Your task to perform on an android device: open app "Booking.com: Hotels and more" (install if not already installed) and go to login screen Image 0: 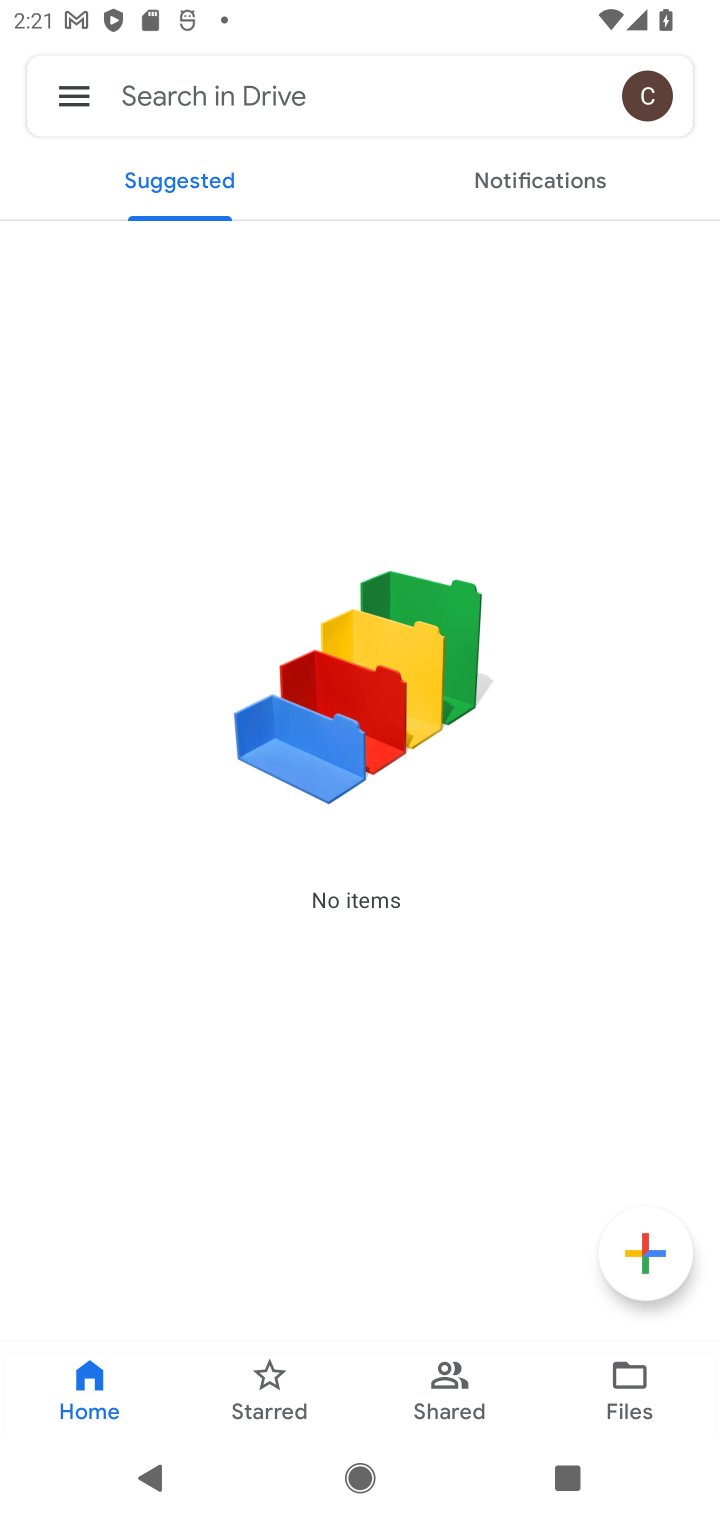
Step 0: press home button
Your task to perform on an android device: open app "Booking.com: Hotels and more" (install if not already installed) and go to login screen Image 1: 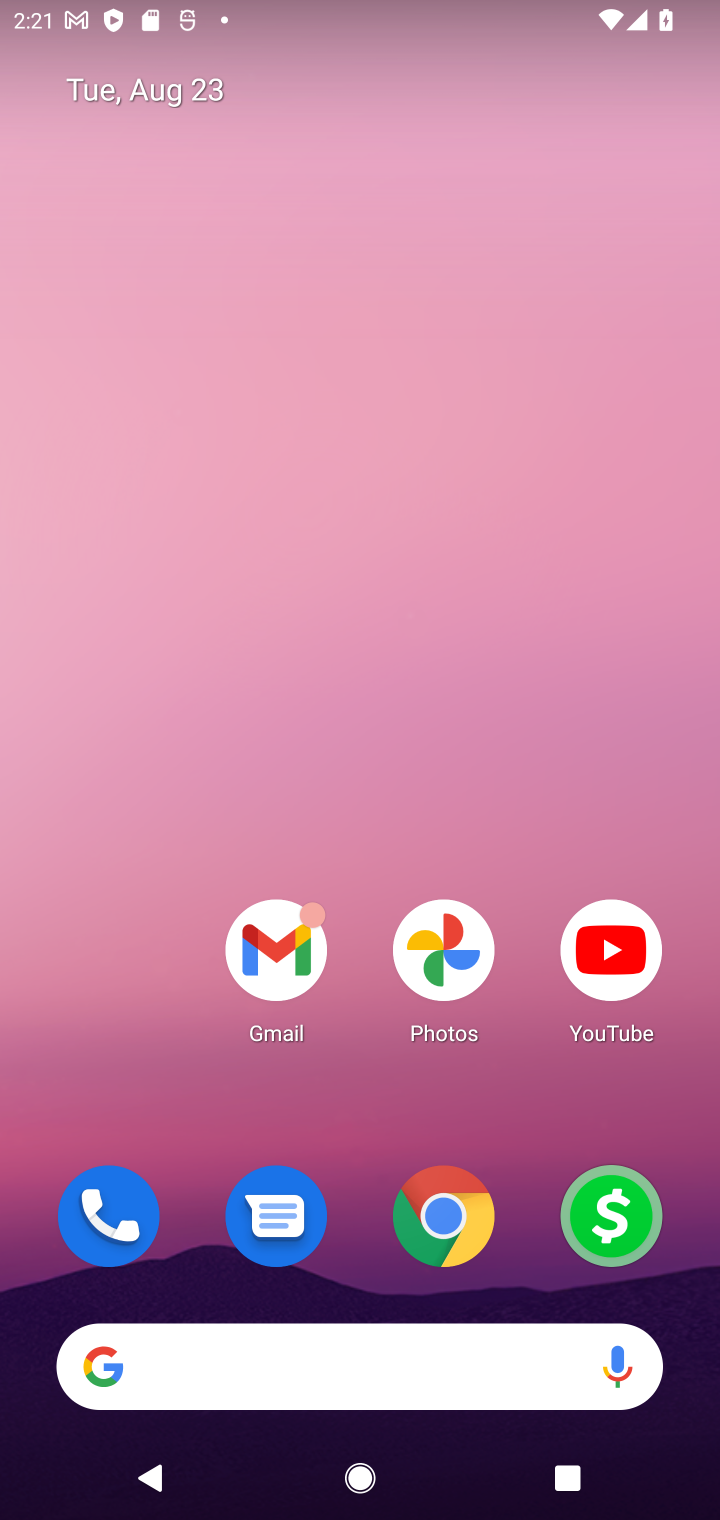
Step 1: drag from (263, 1328) to (327, 317)
Your task to perform on an android device: open app "Booking.com: Hotels and more" (install if not already installed) and go to login screen Image 2: 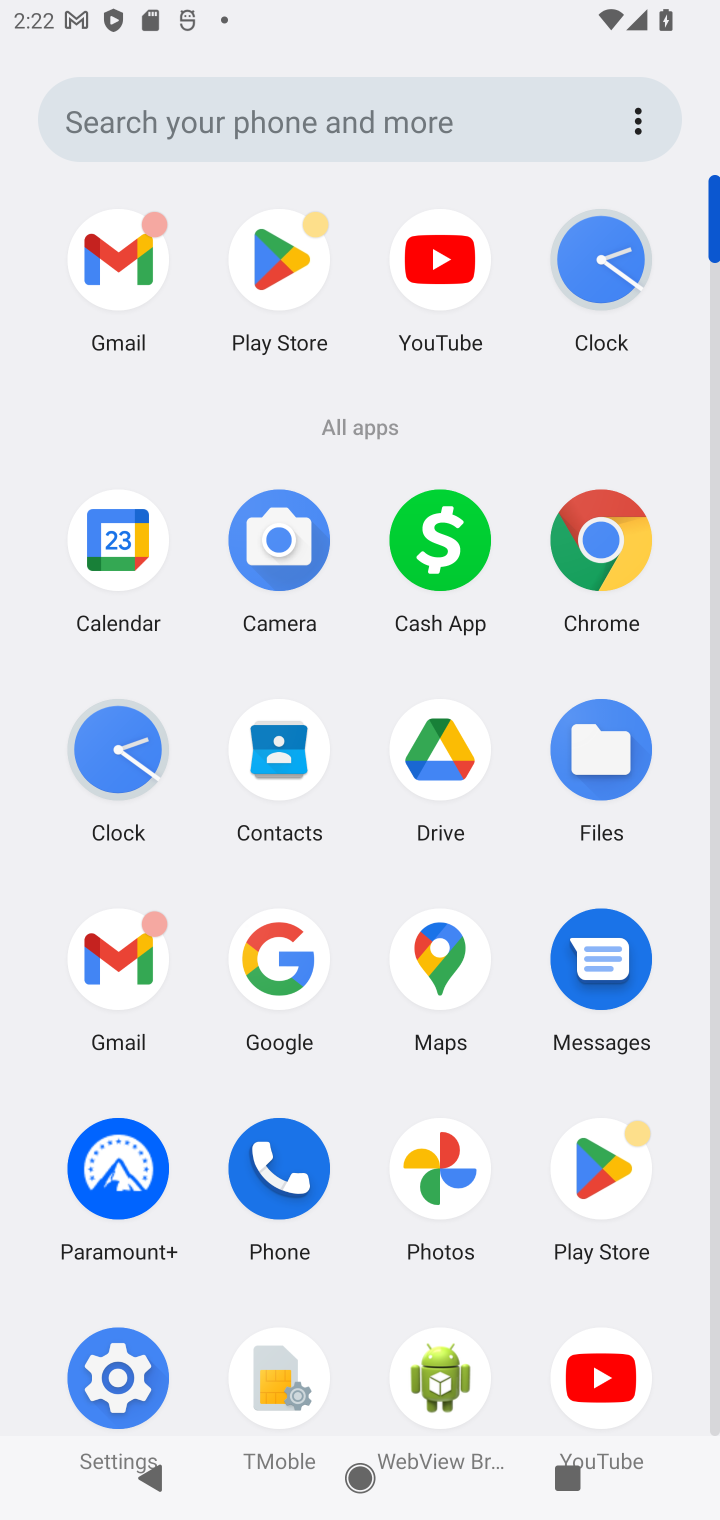
Step 2: click (283, 252)
Your task to perform on an android device: open app "Booking.com: Hotels and more" (install if not already installed) and go to login screen Image 3: 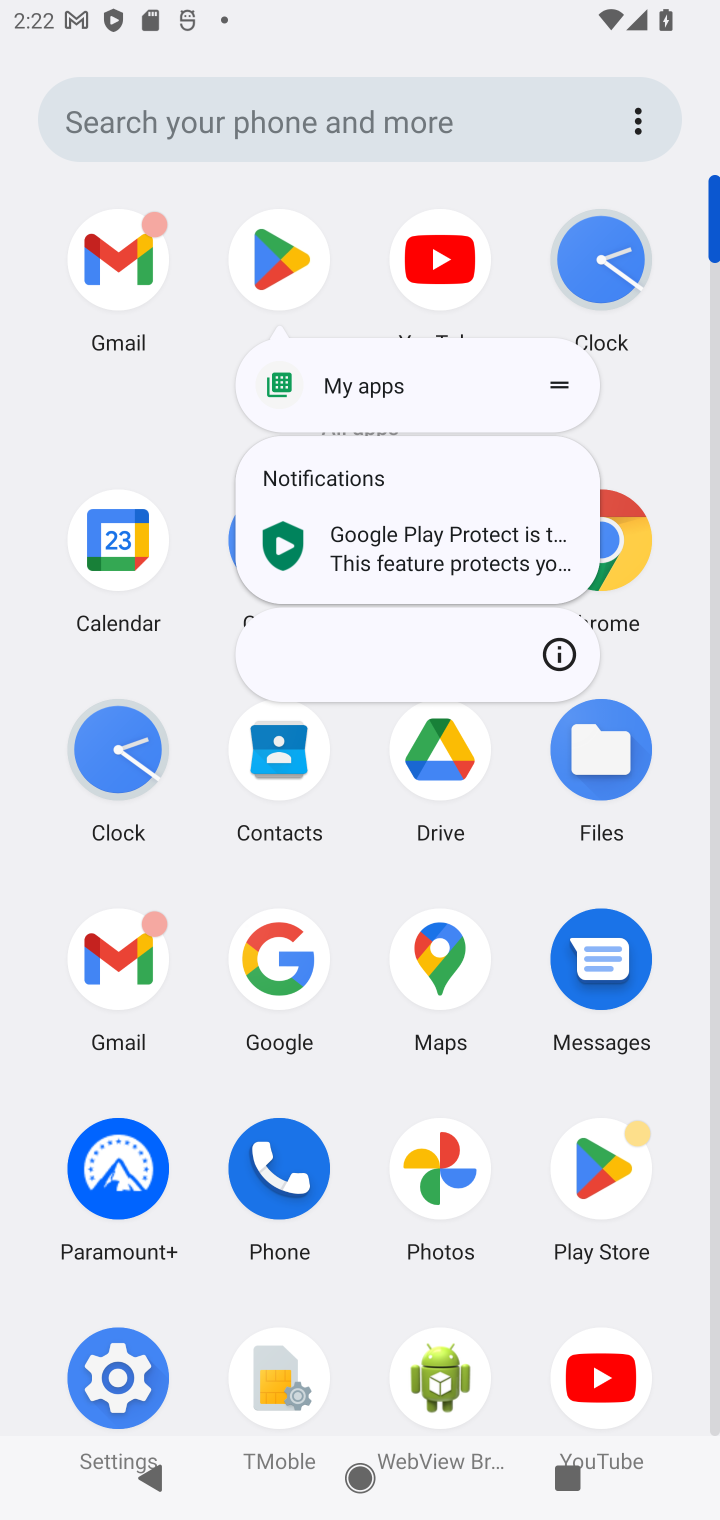
Step 3: click (283, 252)
Your task to perform on an android device: open app "Booking.com: Hotels and more" (install if not already installed) and go to login screen Image 4: 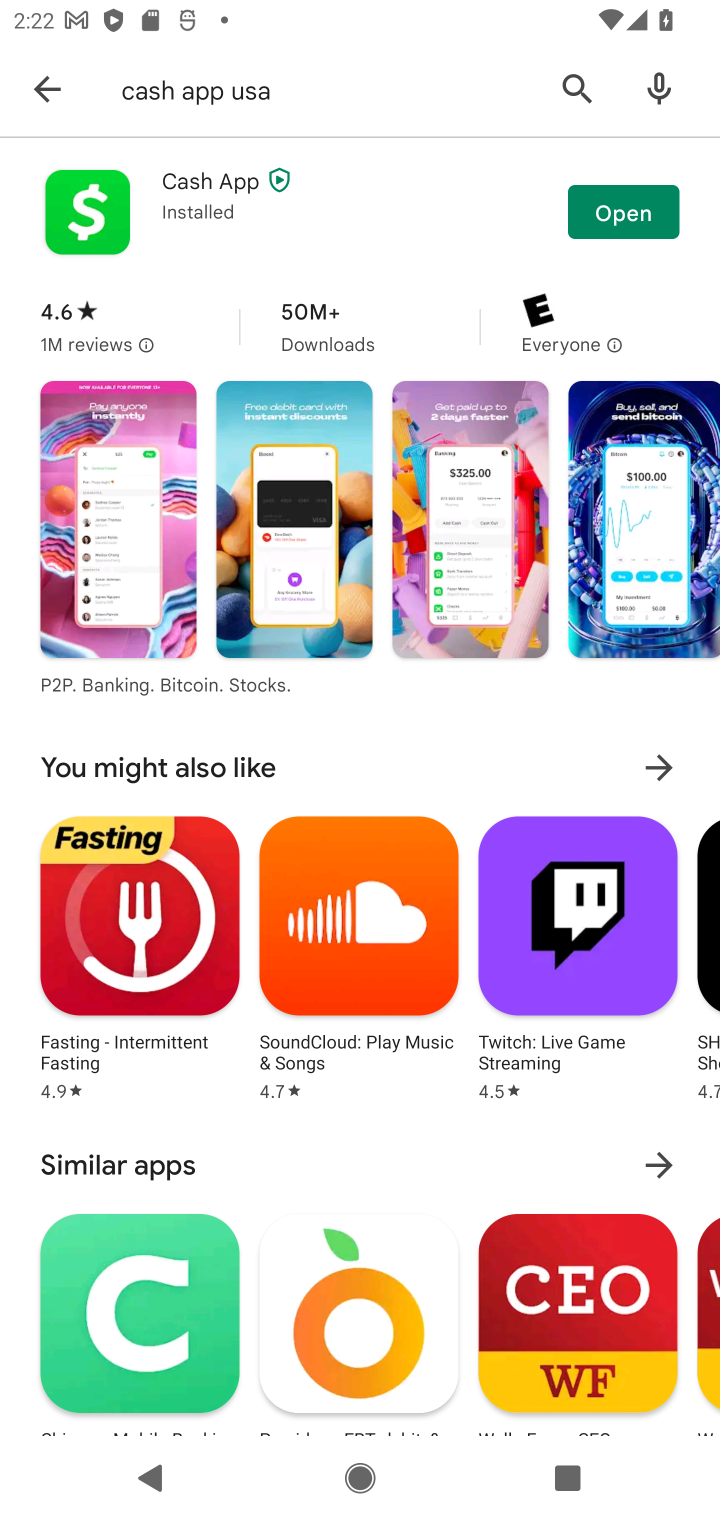
Step 4: click (52, 77)
Your task to perform on an android device: open app "Booking.com: Hotels and more" (install if not already installed) and go to login screen Image 5: 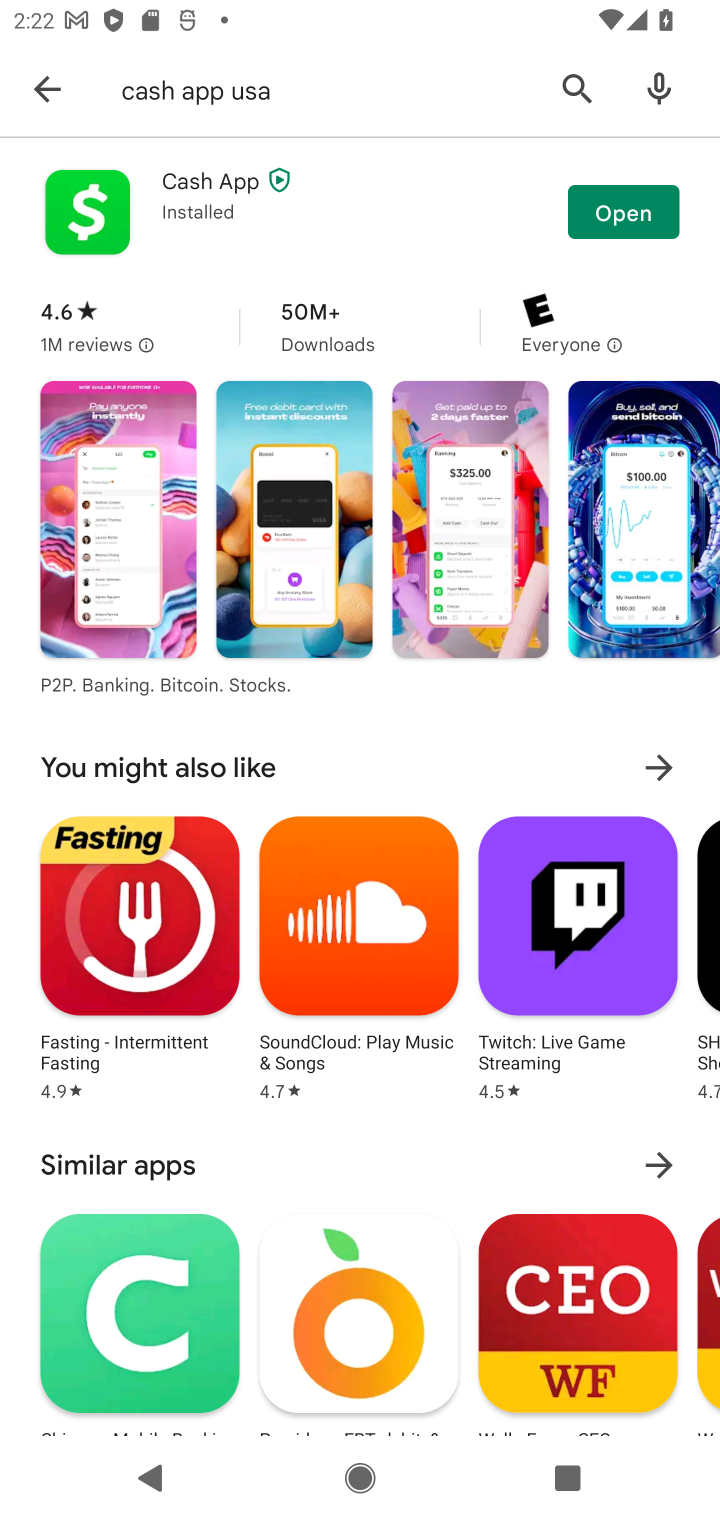
Step 5: click (52, 77)
Your task to perform on an android device: open app "Booking.com: Hotels and more" (install if not already installed) and go to login screen Image 6: 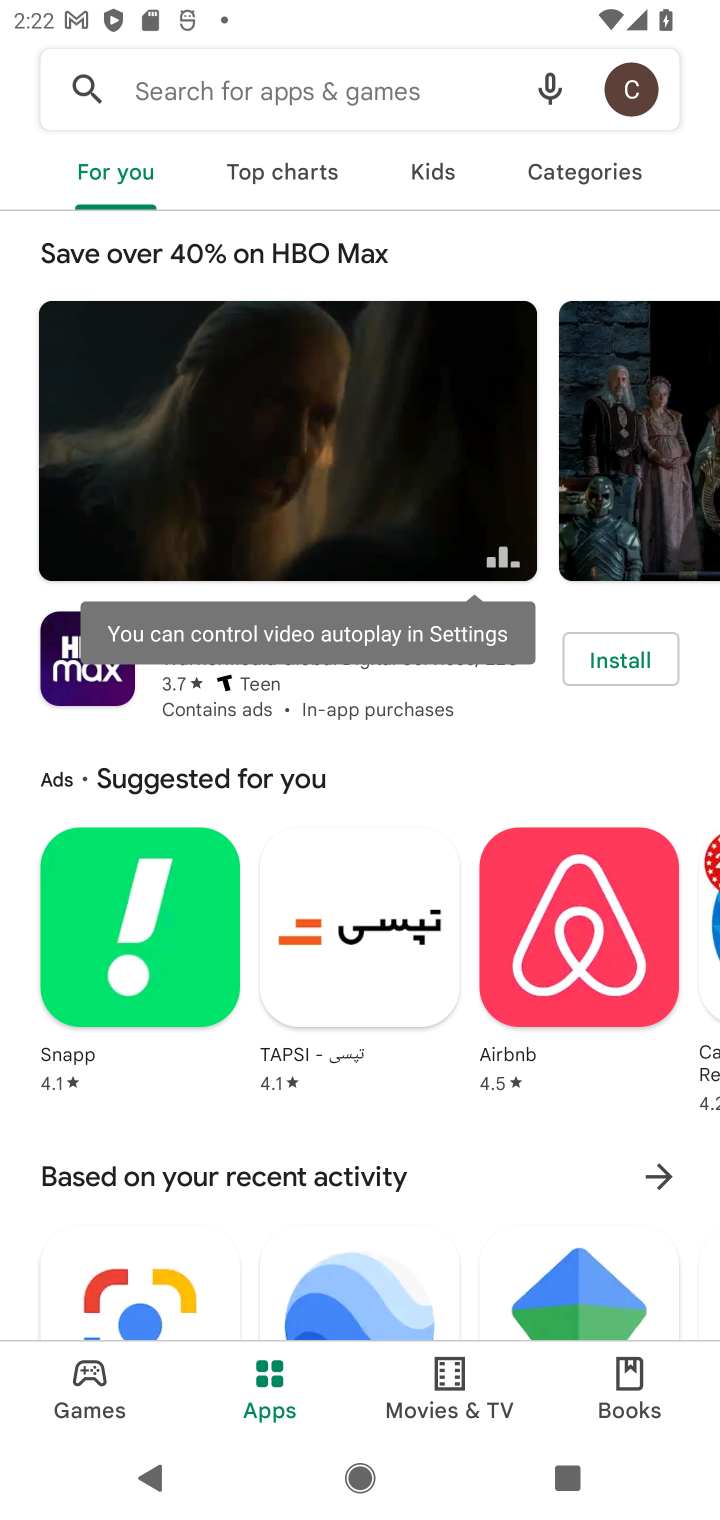
Step 6: click (314, 66)
Your task to perform on an android device: open app "Booking.com: Hotels and more" (install if not already installed) and go to login screen Image 7: 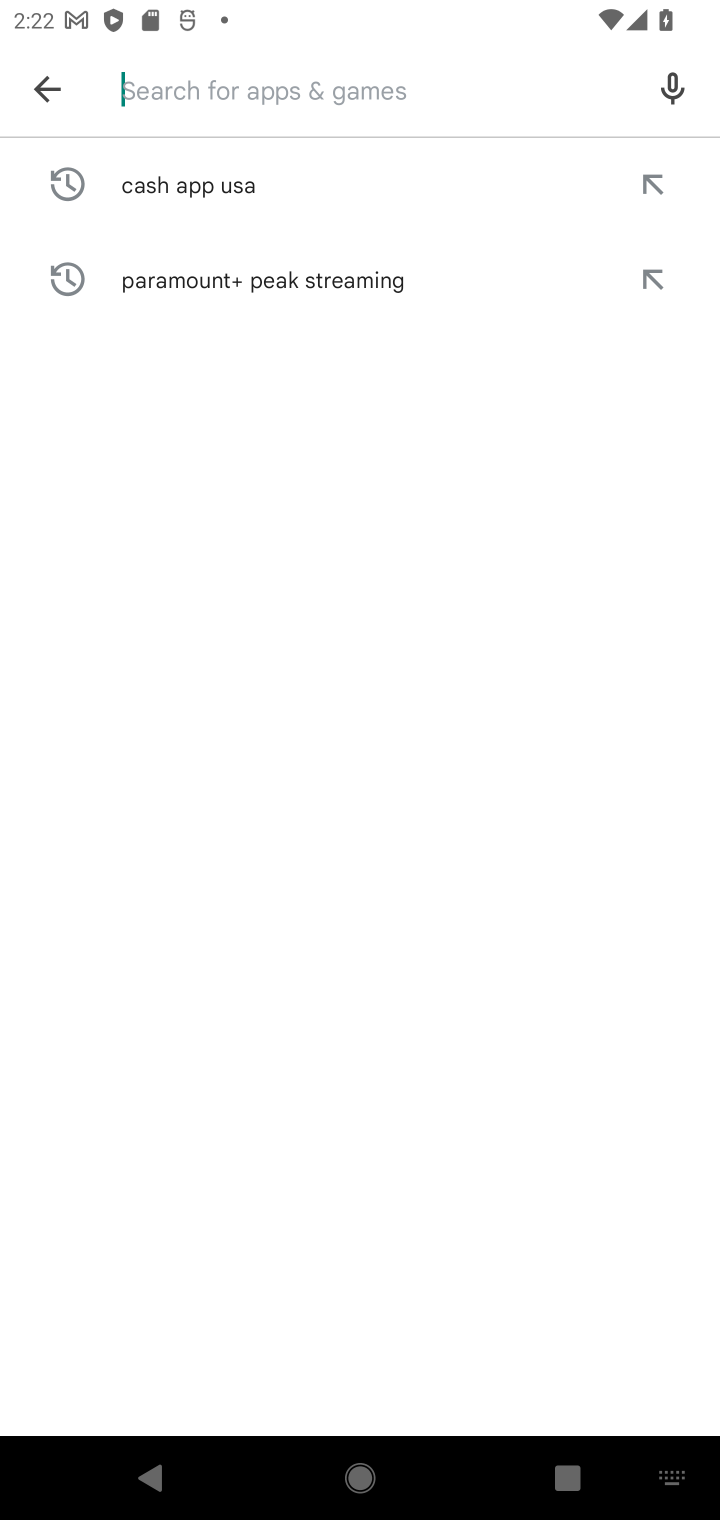
Step 7: type "Booking.com: Hotels and more "
Your task to perform on an android device: open app "Booking.com: Hotels and more" (install if not already installed) and go to login screen Image 8: 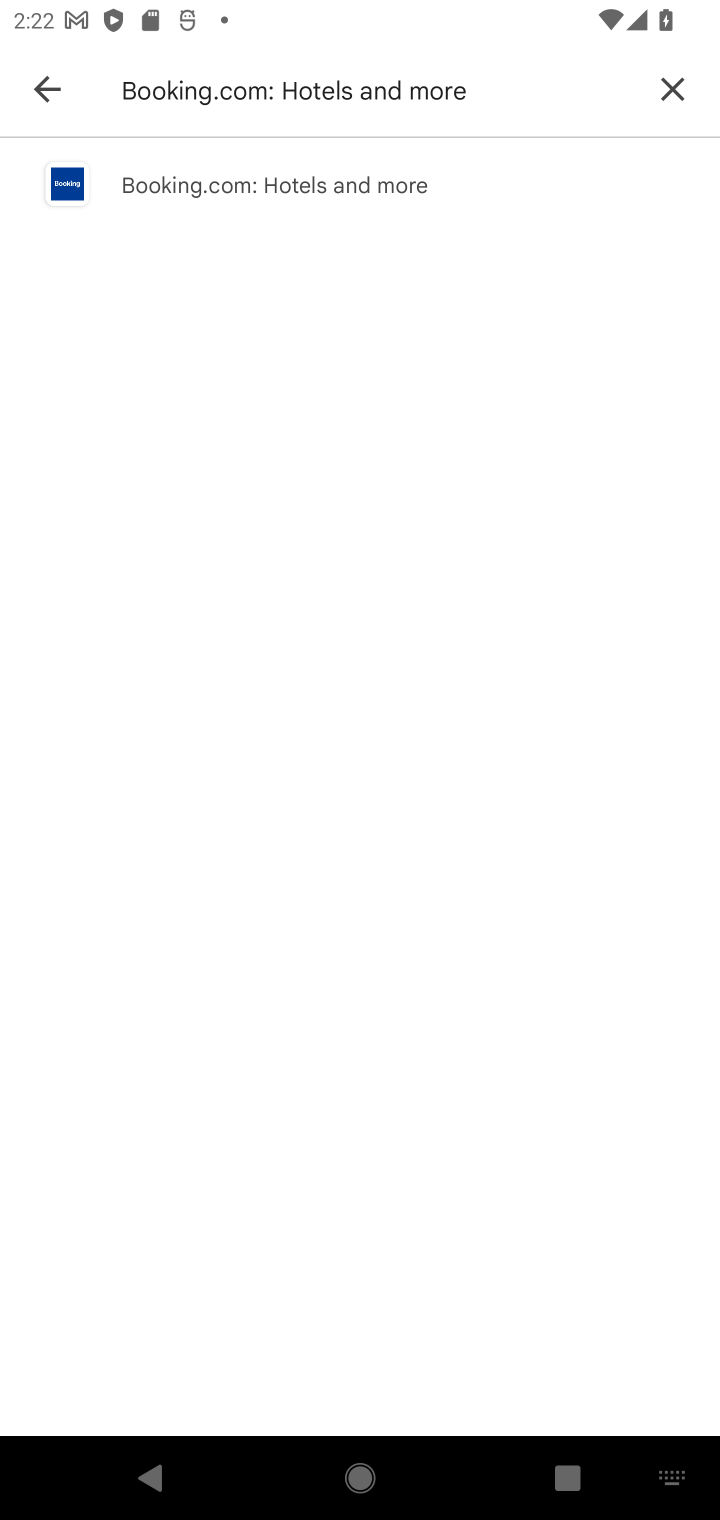
Step 8: click (309, 175)
Your task to perform on an android device: open app "Booking.com: Hotels and more" (install if not already installed) and go to login screen Image 9: 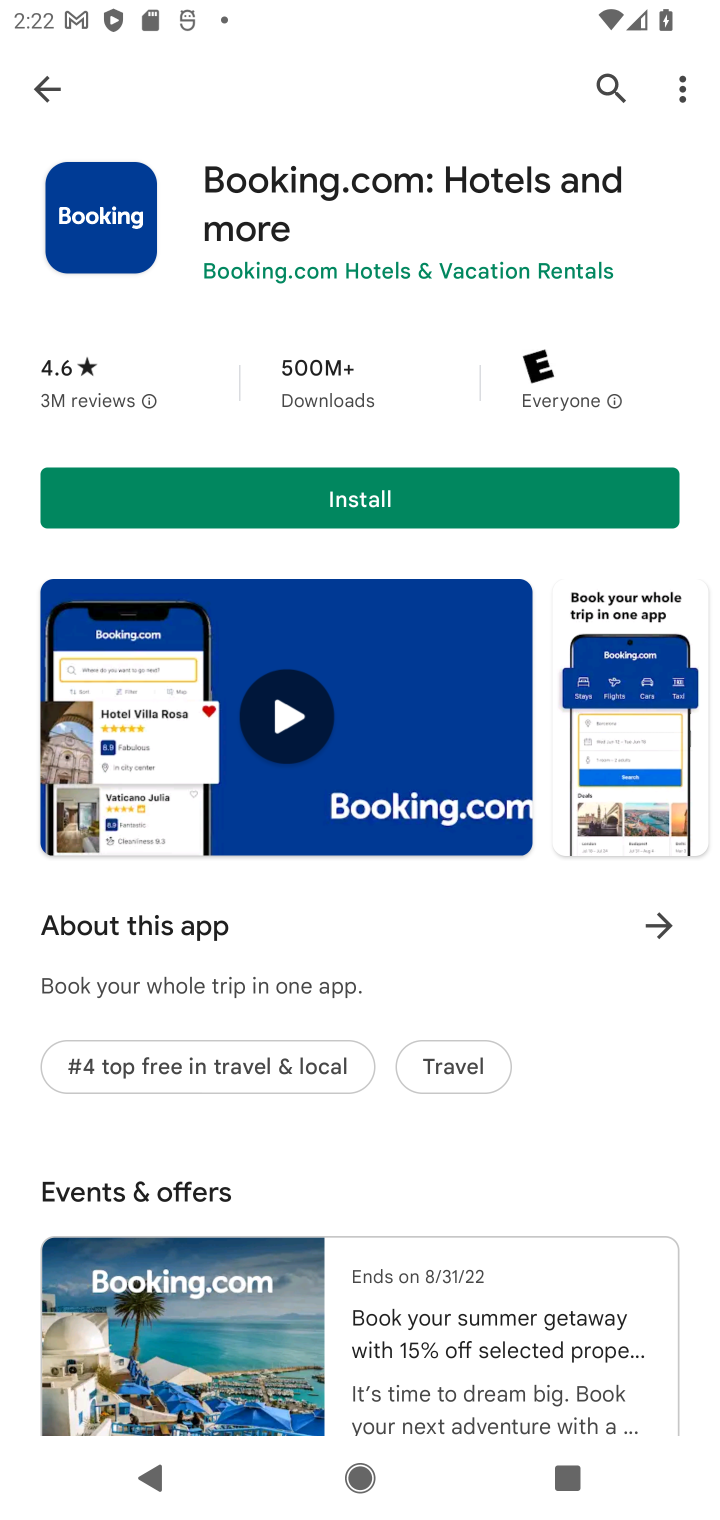
Step 9: click (370, 480)
Your task to perform on an android device: open app "Booking.com: Hotels and more" (install if not already installed) and go to login screen Image 10: 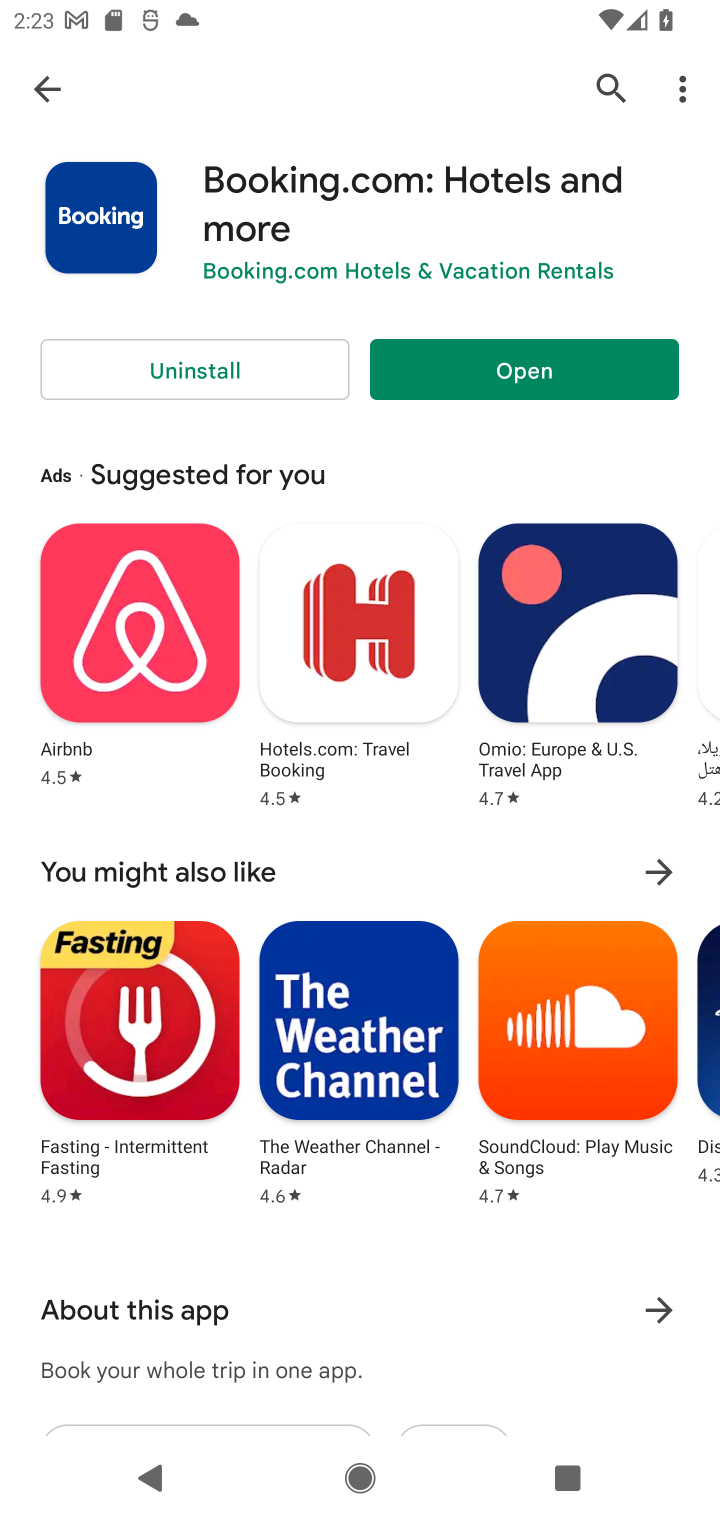
Step 10: click (527, 369)
Your task to perform on an android device: open app "Booking.com: Hotels and more" (install if not already installed) and go to login screen Image 11: 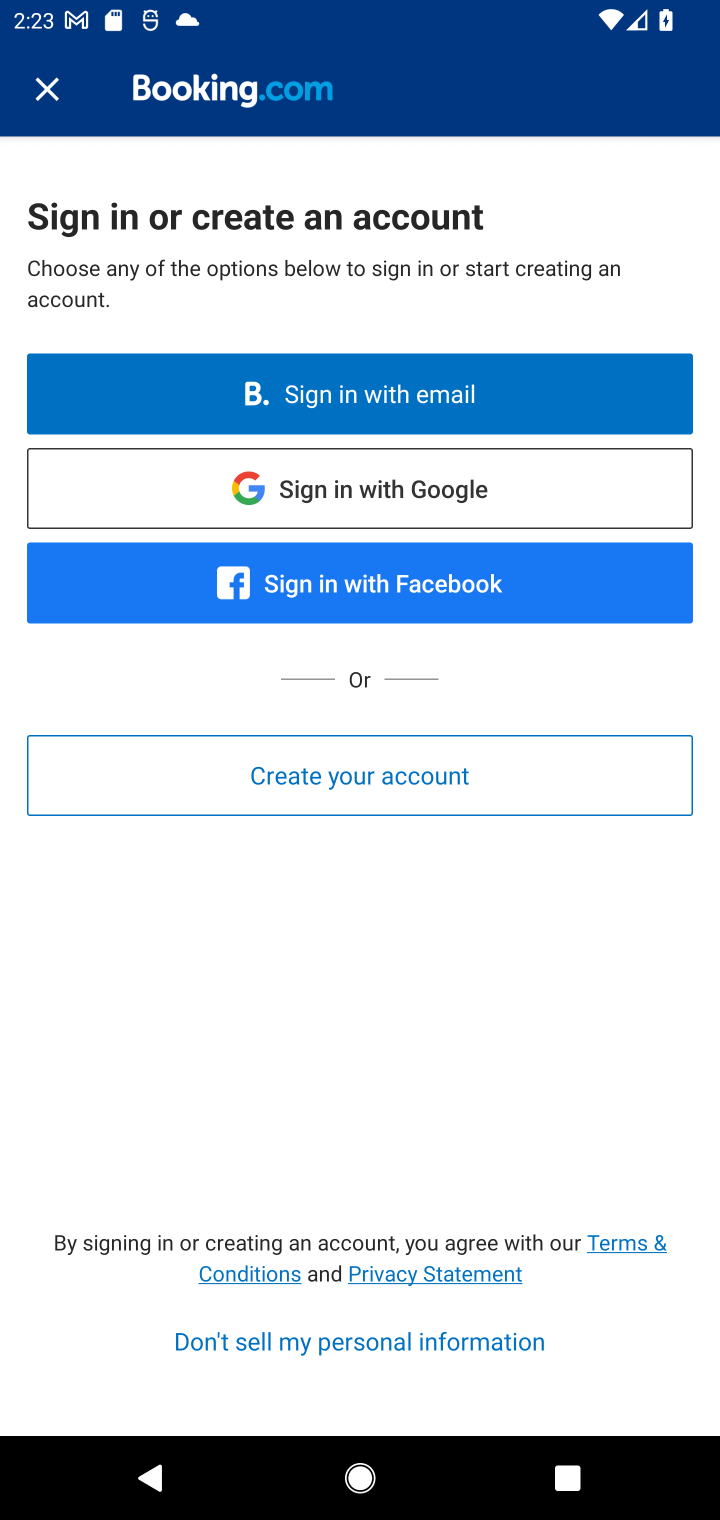
Step 11: task complete